Your task to perform on an android device: Open the map Image 0: 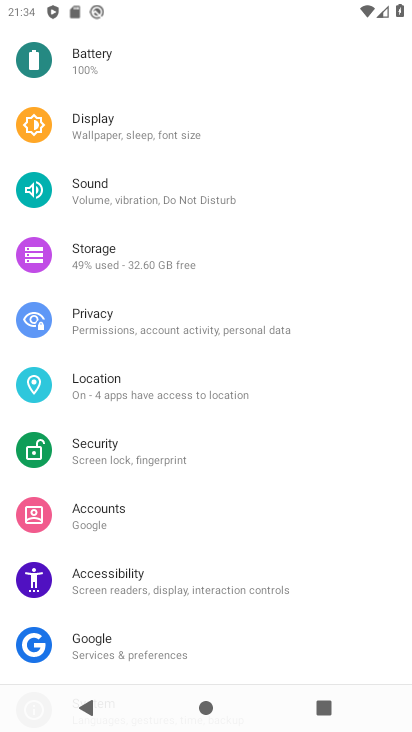
Step 0: press home button
Your task to perform on an android device: Open the map Image 1: 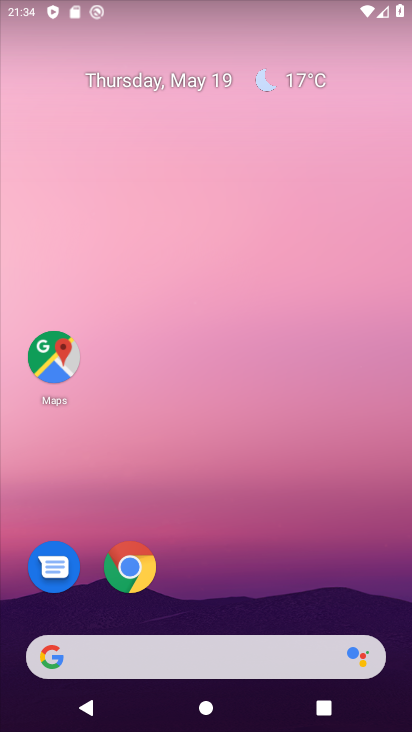
Step 1: click (51, 342)
Your task to perform on an android device: Open the map Image 2: 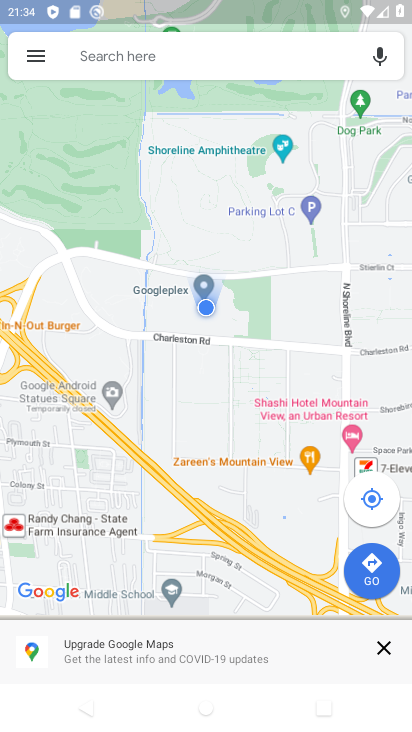
Step 2: task complete